Your task to perform on an android device: Open wifi settings Image 0: 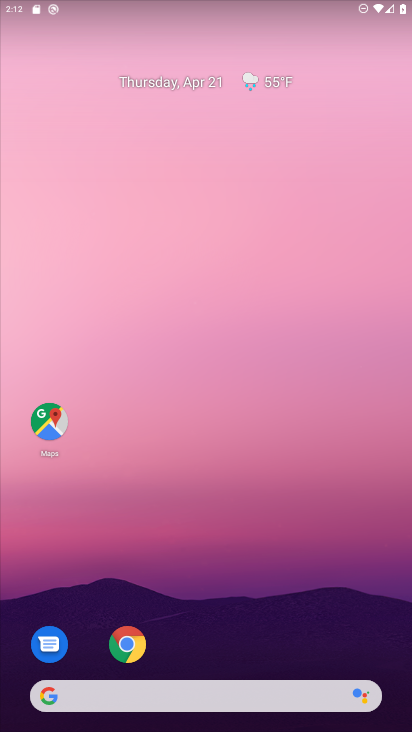
Step 0: drag from (210, 641) to (149, 122)
Your task to perform on an android device: Open wifi settings Image 1: 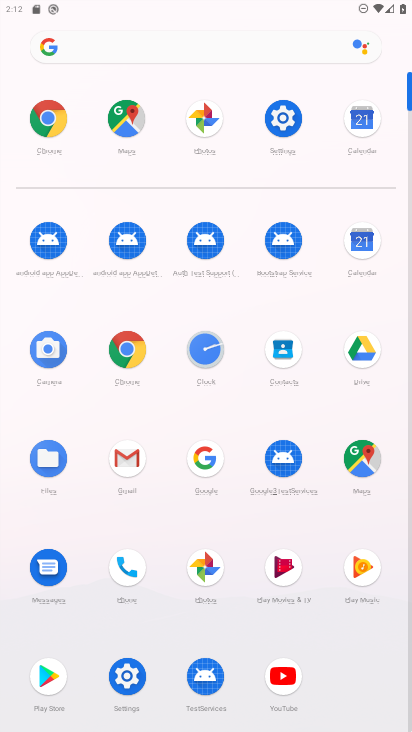
Step 1: click (286, 115)
Your task to perform on an android device: Open wifi settings Image 2: 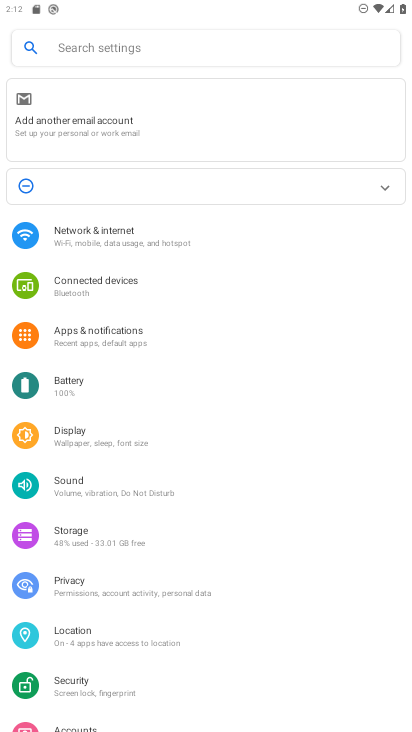
Step 2: click (210, 234)
Your task to perform on an android device: Open wifi settings Image 3: 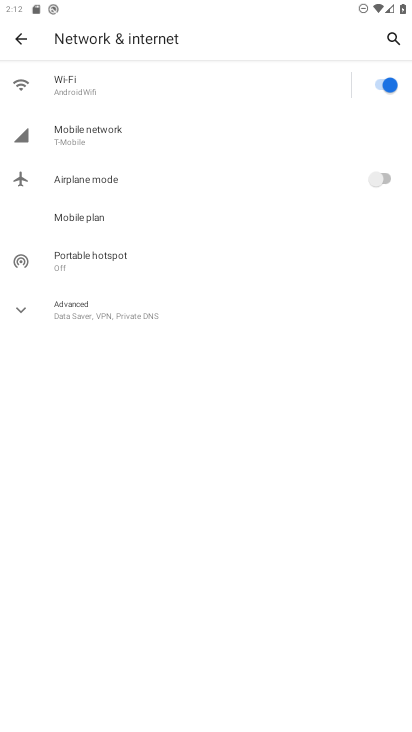
Step 3: click (108, 85)
Your task to perform on an android device: Open wifi settings Image 4: 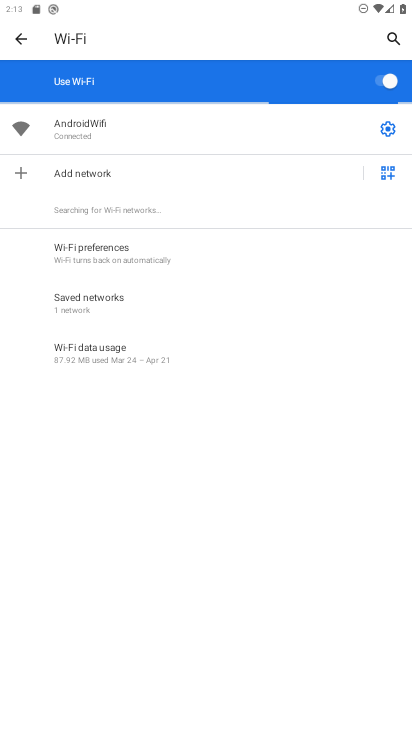
Step 4: task complete